Your task to perform on an android device: turn off notifications in google photos Image 0: 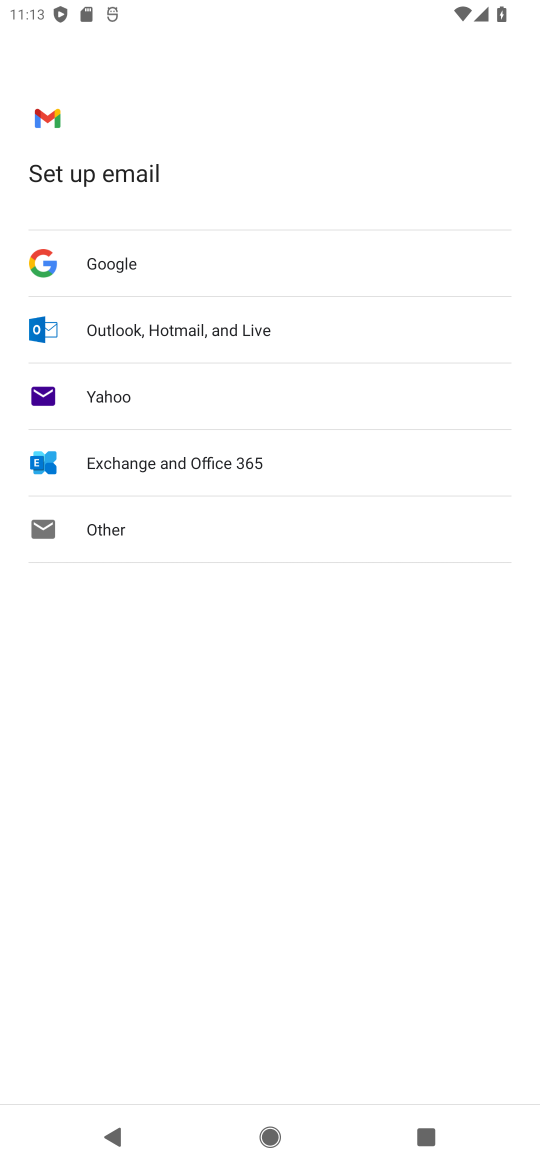
Step 0: press home button
Your task to perform on an android device: turn off notifications in google photos Image 1: 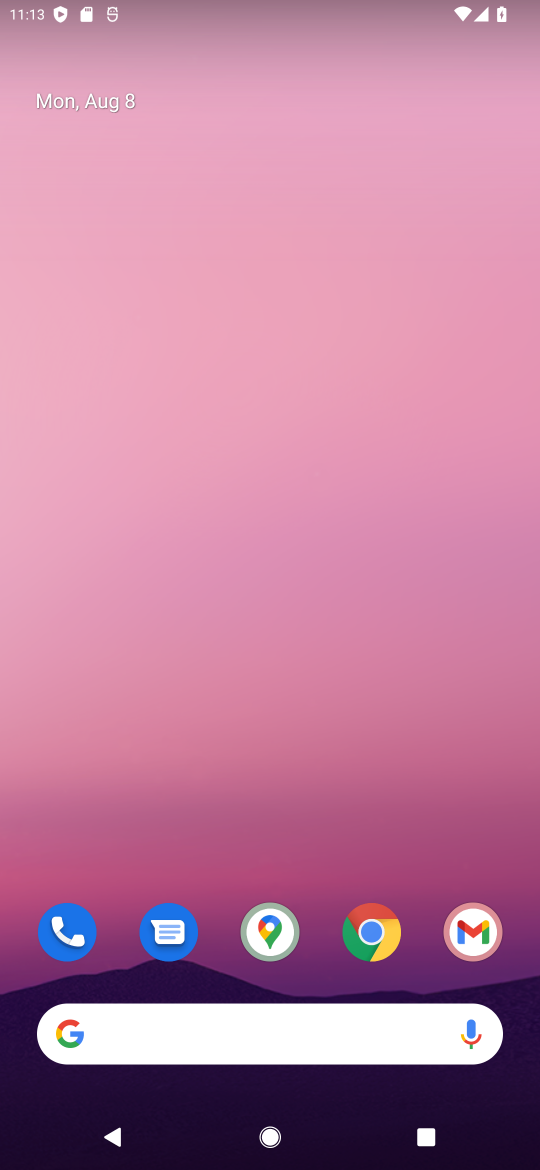
Step 1: drag from (205, 855) to (276, 195)
Your task to perform on an android device: turn off notifications in google photos Image 2: 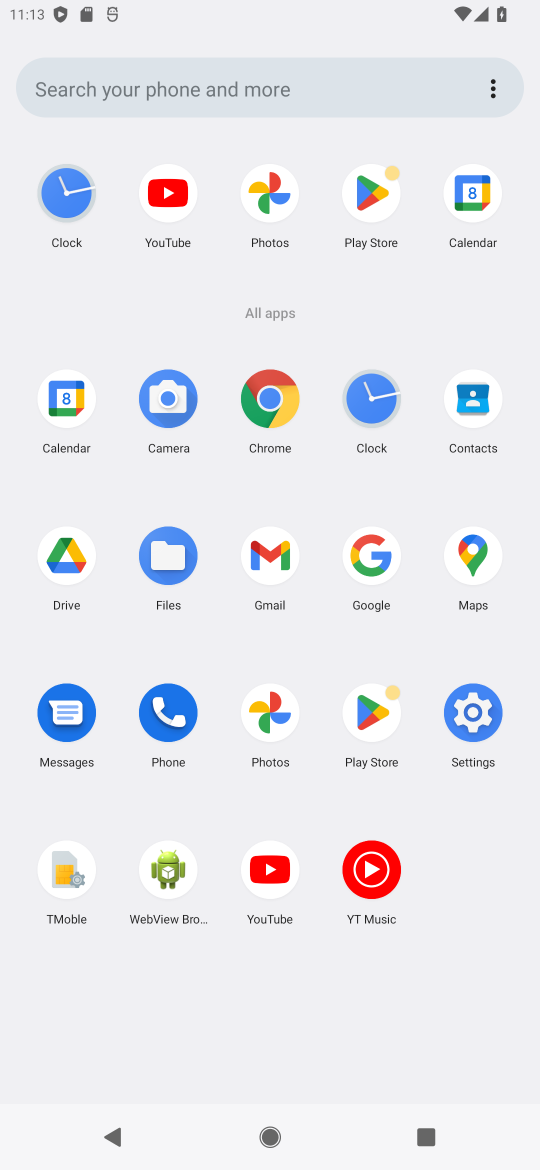
Step 2: click (463, 698)
Your task to perform on an android device: turn off notifications in google photos Image 3: 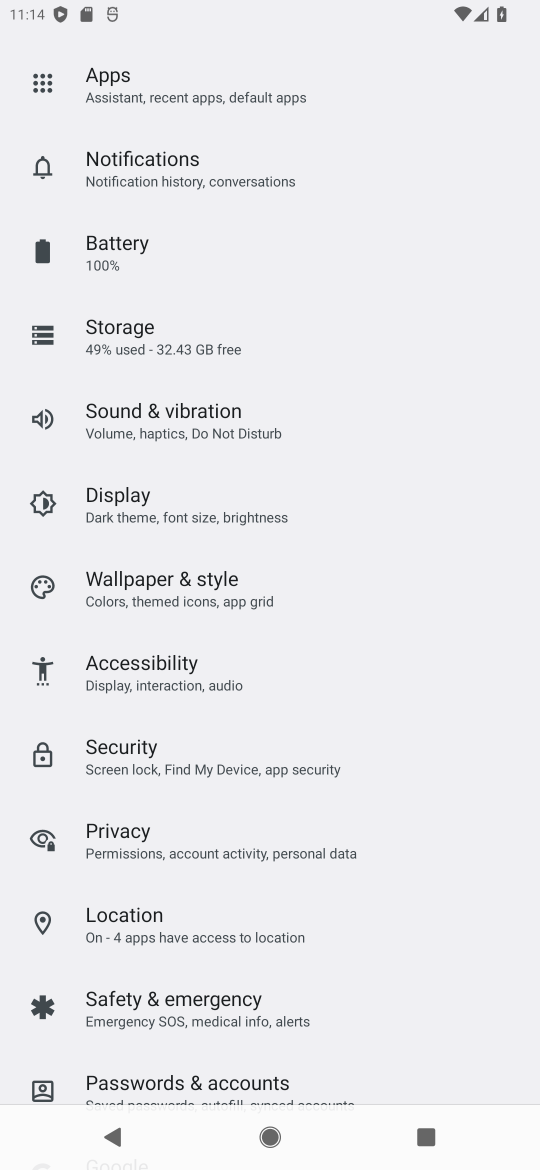
Step 3: click (220, 180)
Your task to perform on an android device: turn off notifications in google photos Image 4: 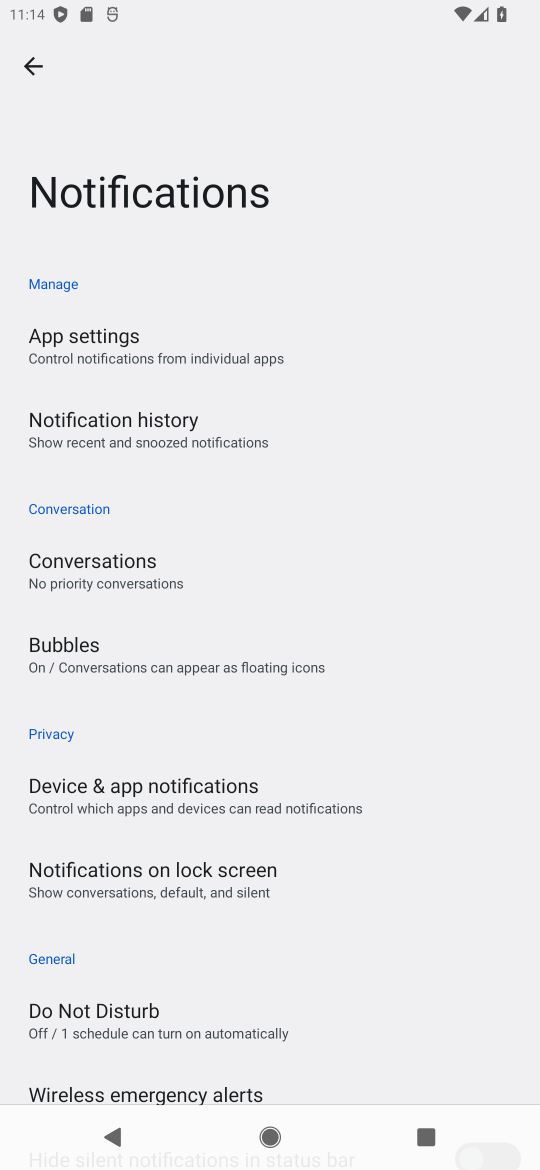
Step 4: drag from (245, 988) to (333, 167)
Your task to perform on an android device: turn off notifications in google photos Image 5: 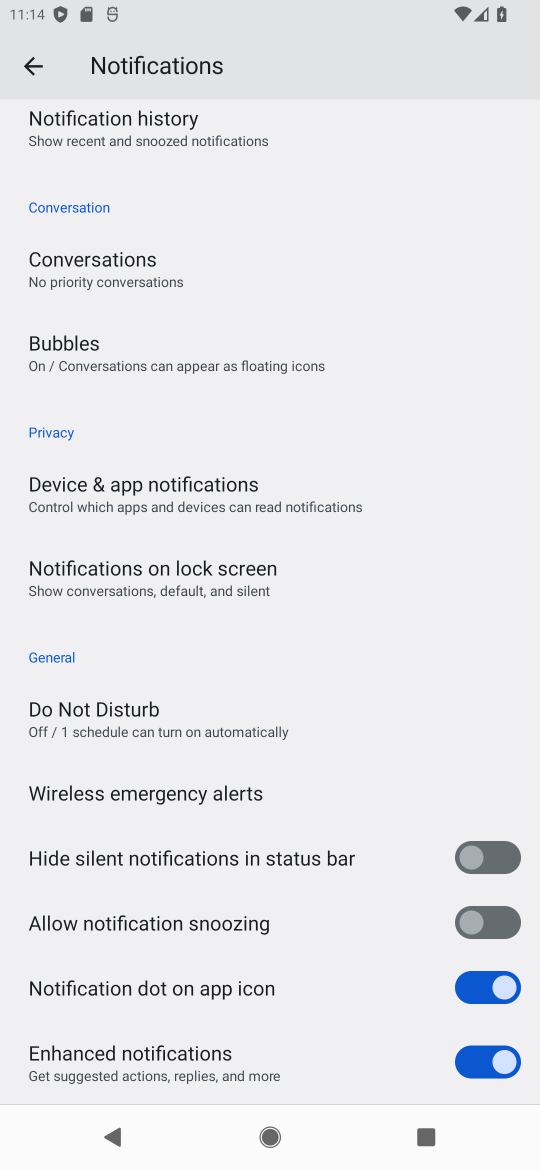
Step 5: drag from (366, 180) to (198, 18)
Your task to perform on an android device: turn off notifications in google photos Image 6: 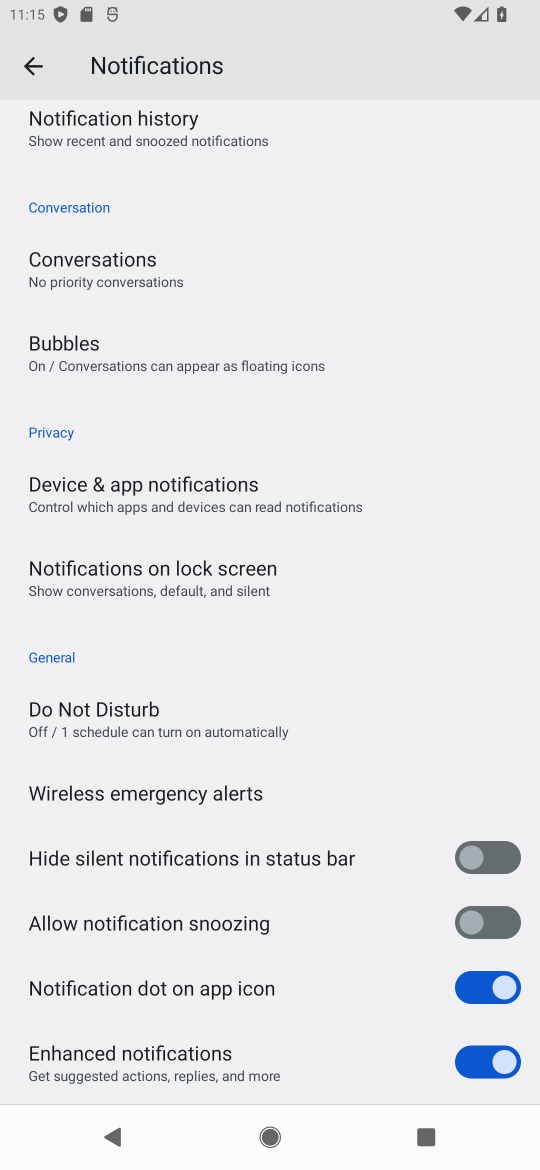
Step 6: click (21, 39)
Your task to perform on an android device: turn off notifications in google photos Image 7: 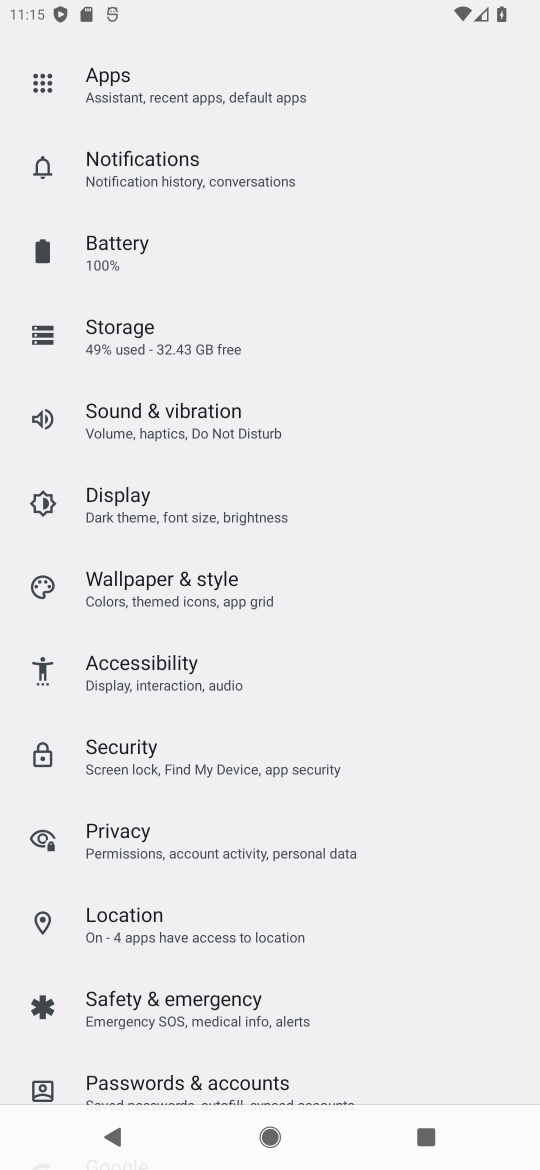
Step 7: drag from (166, 136) to (221, 656)
Your task to perform on an android device: turn off notifications in google photos Image 8: 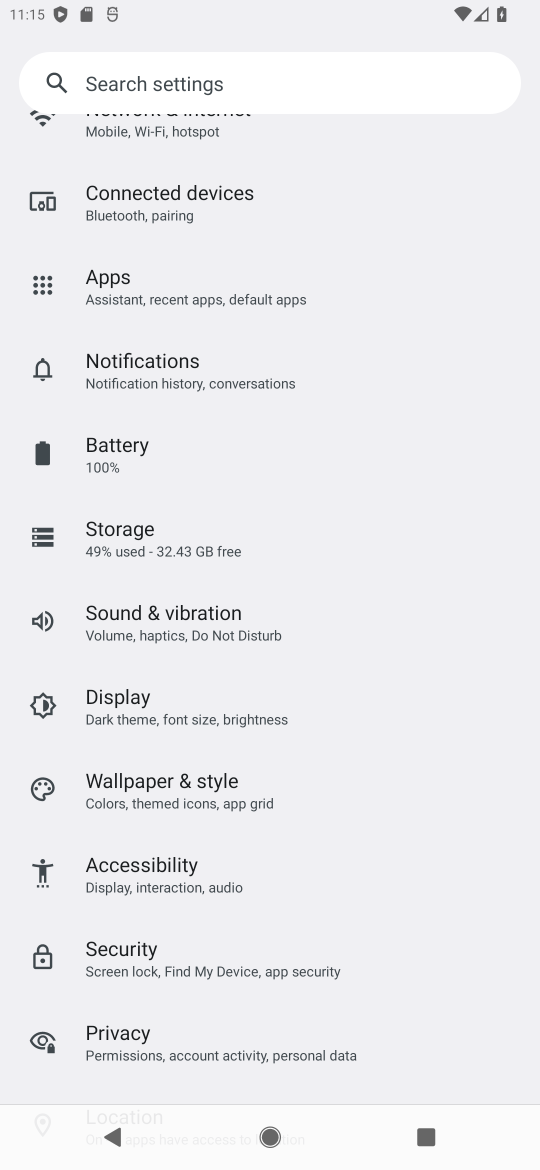
Step 8: click (184, 401)
Your task to perform on an android device: turn off notifications in google photos Image 9: 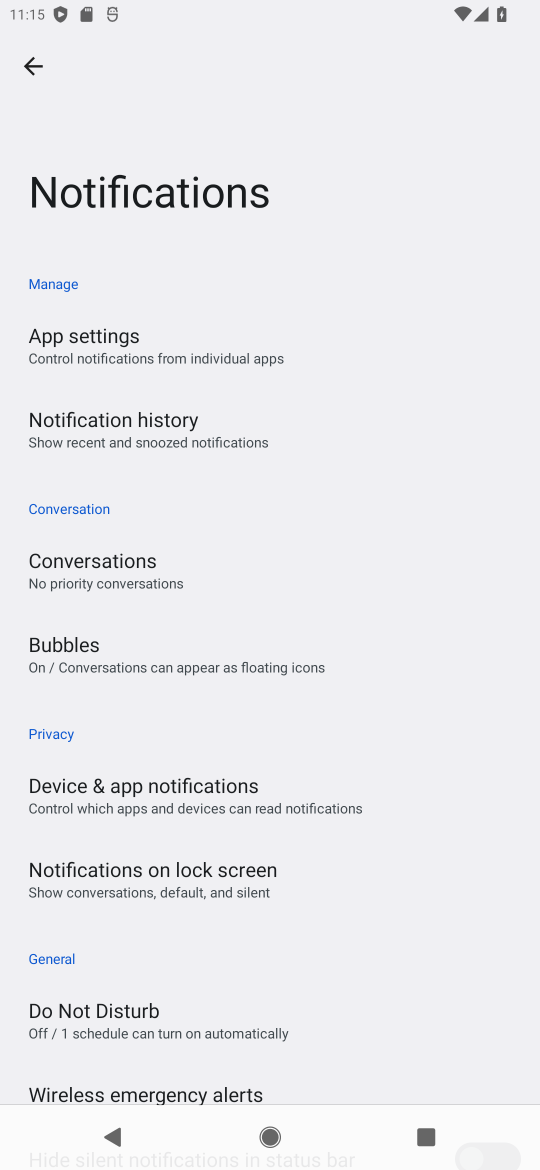
Step 9: click (64, 337)
Your task to perform on an android device: turn off notifications in google photos Image 10: 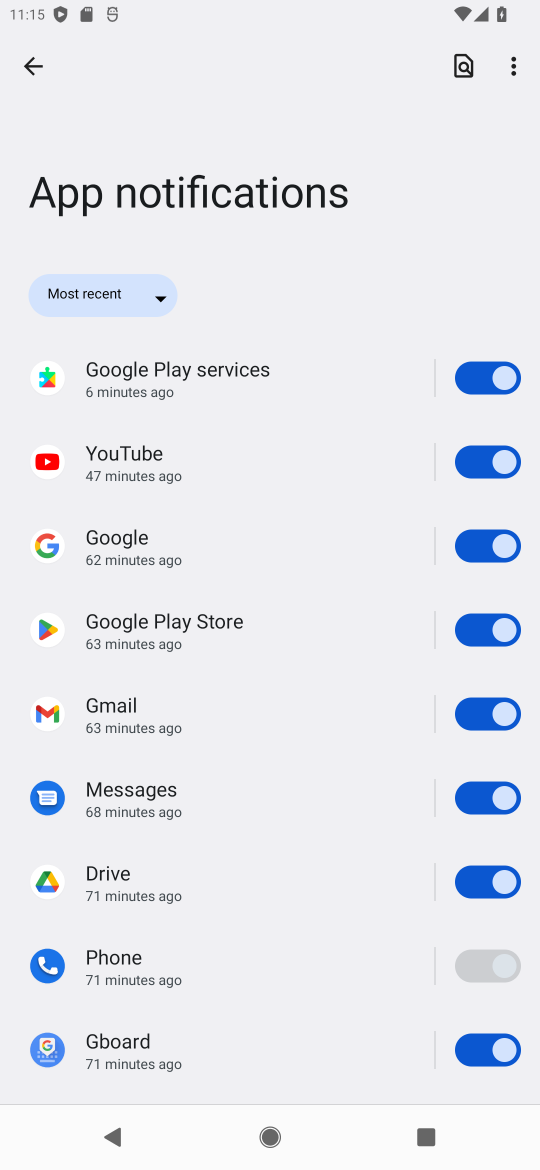
Step 10: task complete